Your task to perform on an android device: Open the phone app and click the voicemail tab. Image 0: 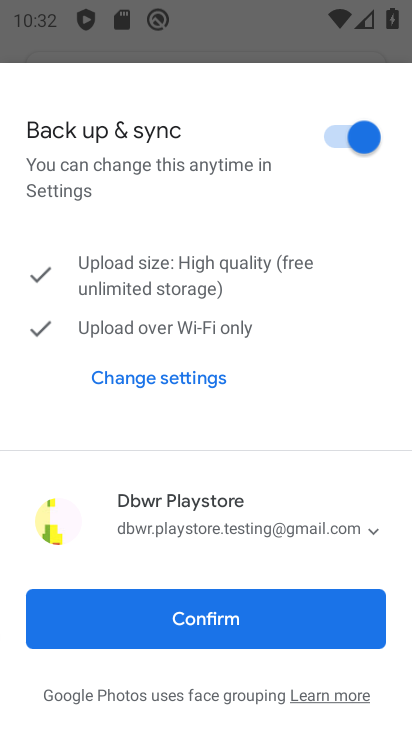
Step 0: press back button
Your task to perform on an android device: Open the phone app and click the voicemail tab. Image 1: 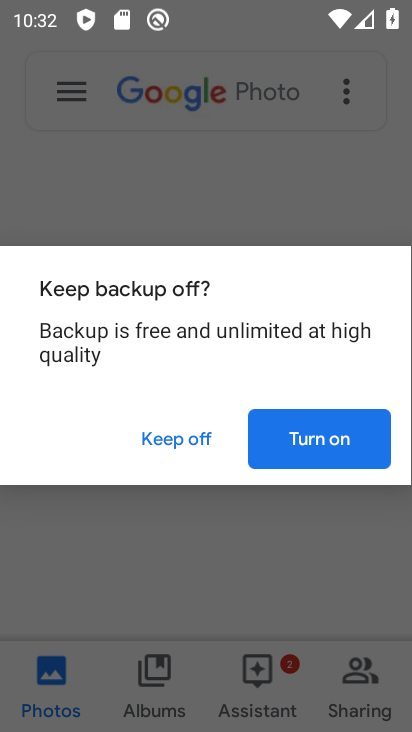
Step 1: press home button
Your task to perform on an android device: Open the phone app and click the voicemail tab. Image 2: 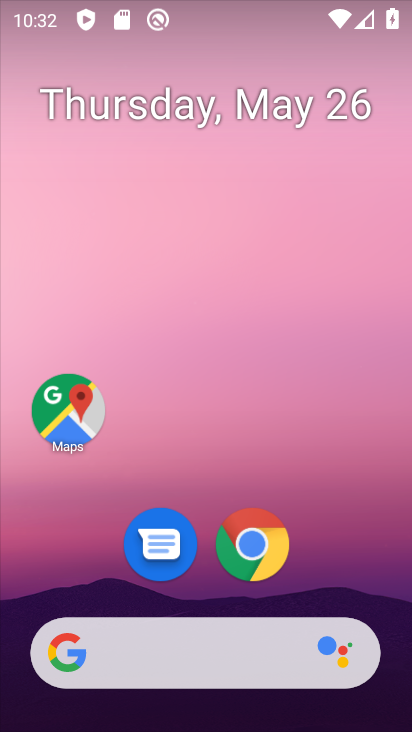
Step 2: drag from (326, 545) to (256, 16)
Your task to perform on an android device: Open the phone app and click the voicemail tab. Image 3: 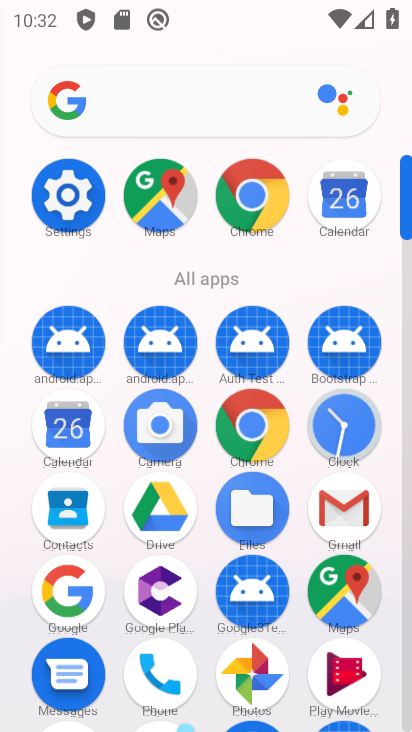
Step 3: drag from (20, 568) to (11, 192)
Your task to perform on an android device: Open the phone app and click the voicemail tab. Image 4: 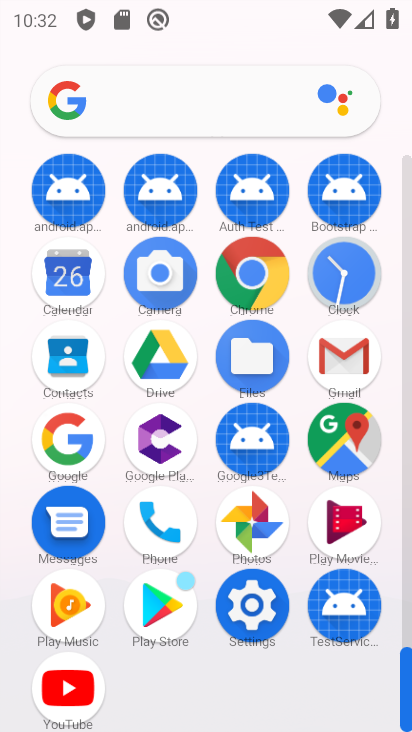
Step 4: drag from (20, 531) to (12, 194)
Your task to perform on an android device: Open the phone app and click the voicemail tab. Image 5: 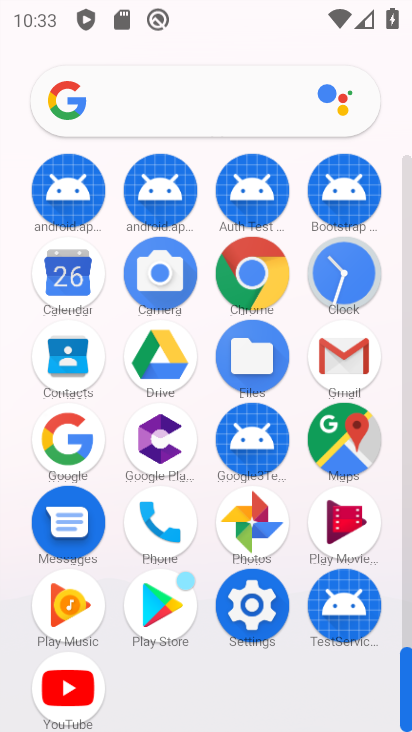
Step 5: click (154, 515)
Your task to perform on an android device: Open the phone app and click the voicemail tab. Image 6: 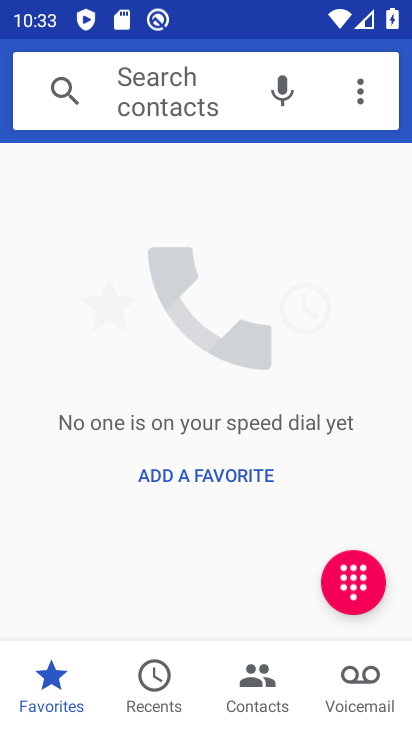
Step 6: click (324, 690)
Your task to perform on an android device: Open the phone app and click the voicemail tab. Image 7: 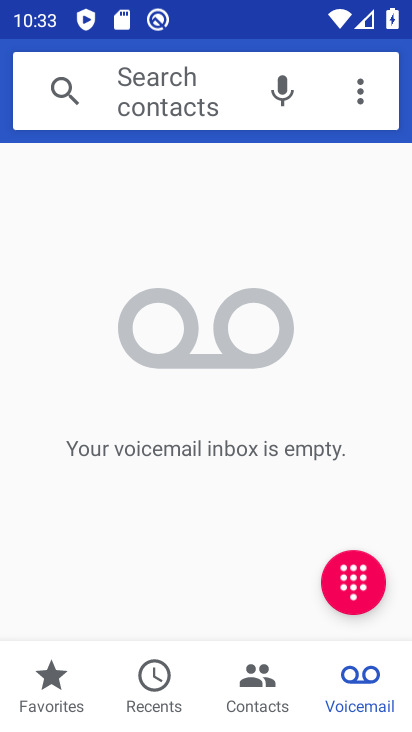
Step 7: task complete